Your task to perform on an android device: Go to Android settings Image 0: 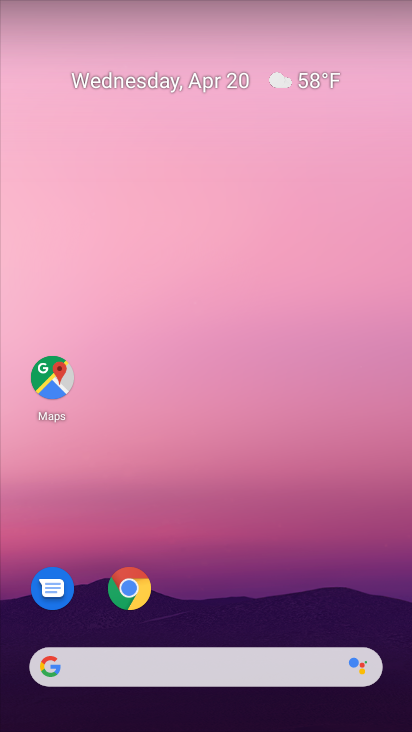
Step 0: drag from (214, 727) to (207, 94)
Your task to perform on an android device: Go to Android settings Image 1: 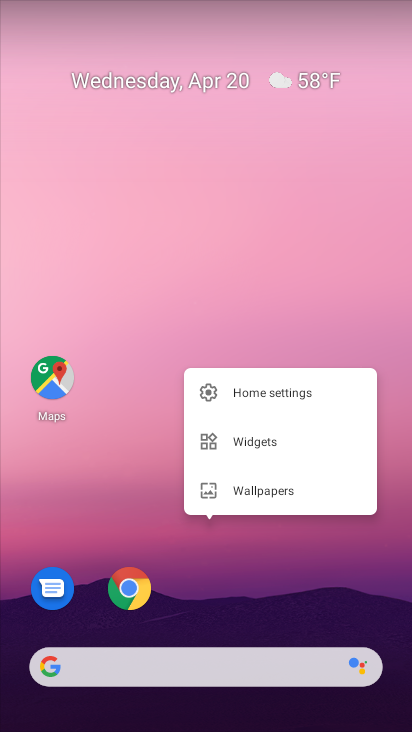
Step 1: click (253, 311)
Your task to perform on an android device: Go to Android settings Image 2: 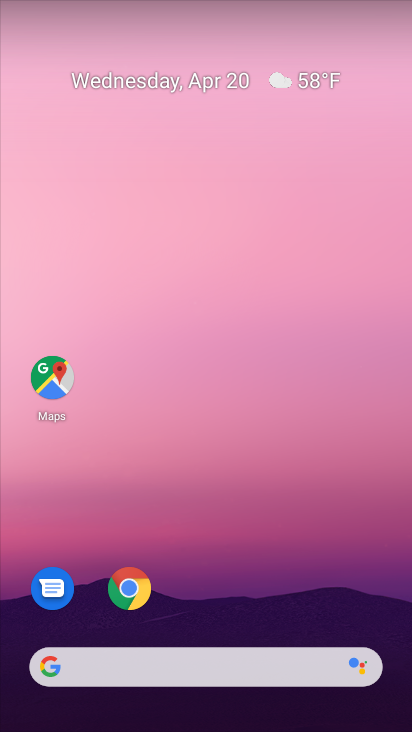
Step 2: drag from (230, 720) to (233, 111)
Your task to perform on an android device: Go to Android settings Image 3: 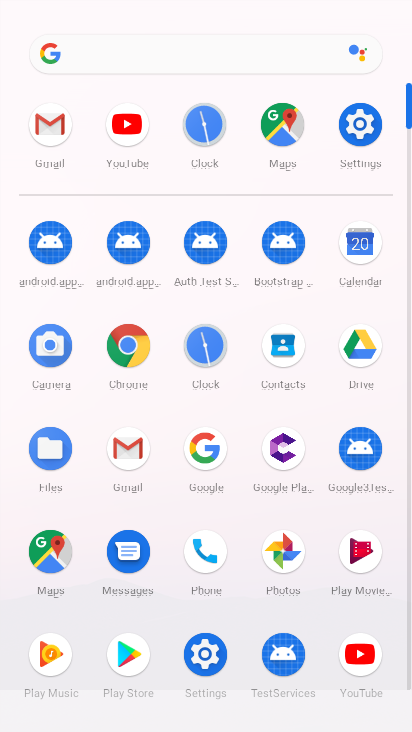
Step 3: click (358, 129)
Your task to perform on an android device: Go to Android settings Image 4: 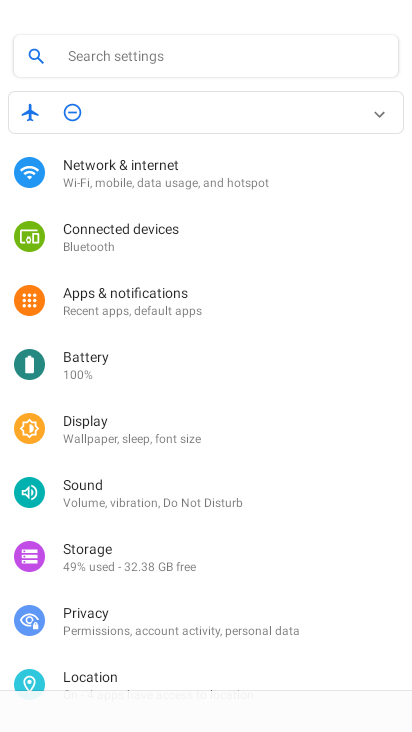
Step 4: task complete